Your task to perform on an android device: Go to wifi settings Image 0: 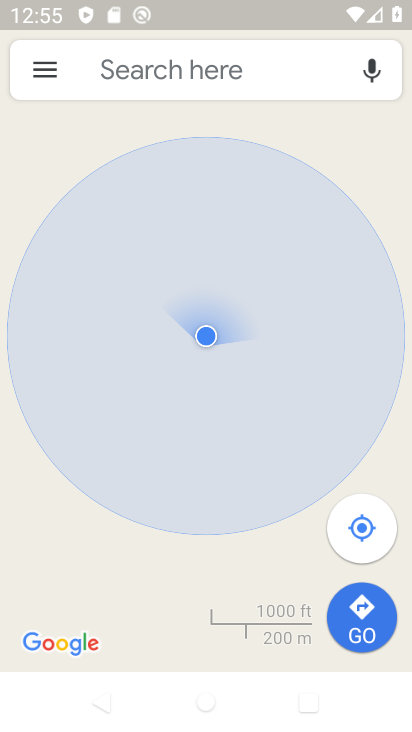
Step 0: press home button
Your task to perform on an android device: Go to wifi settings Image 1: 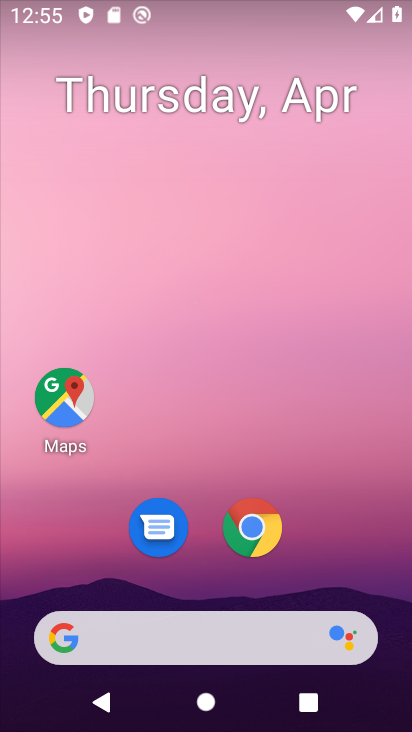
Step 1: drag from (363, 559) to (319, 94)
Your task to perform on an android device: Go to wifi settings Image 2: 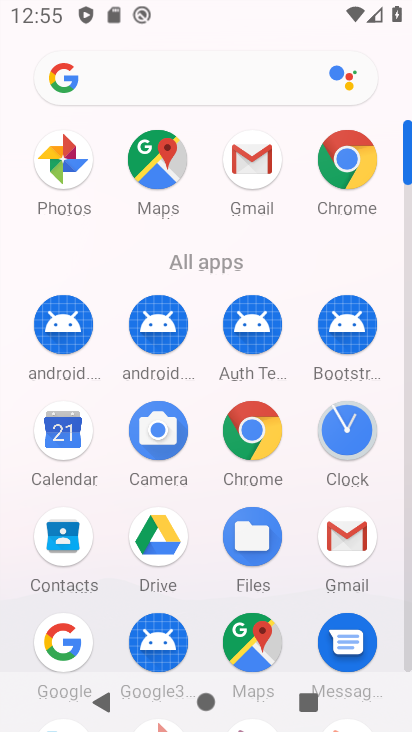
Step 2: click (405, 653)
Your task to perform on an android device: Go to wifi settings Image 3: 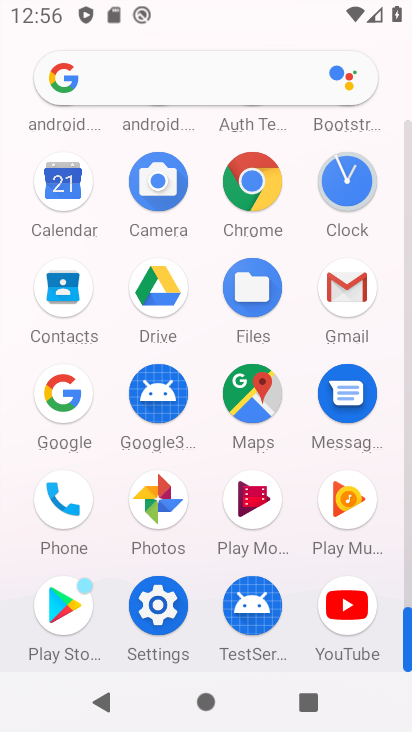
Step 3: click (156, 596)
Your task to perform on an android device: Go to wifi settings Image 4: 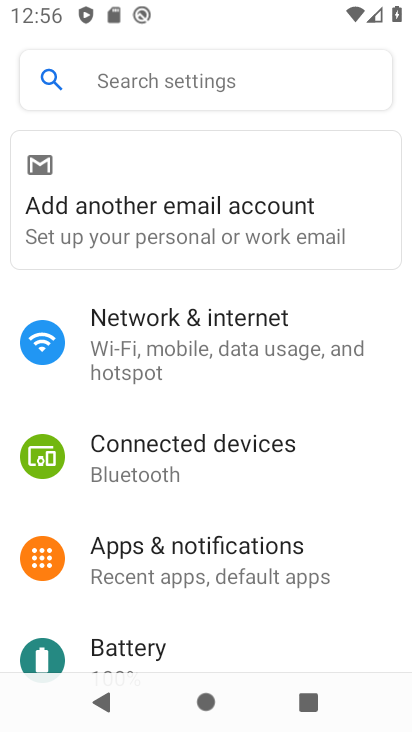
Step 4: click (174, 330)
Your task to perform on an android device: Go to wifi settings Image 5: 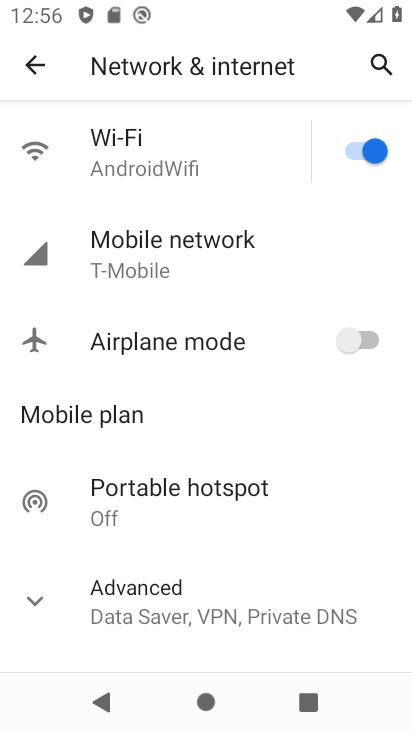
Step 5: click (134, 166)
Your task to perform on an android device: Go to wifi settings Image 6: 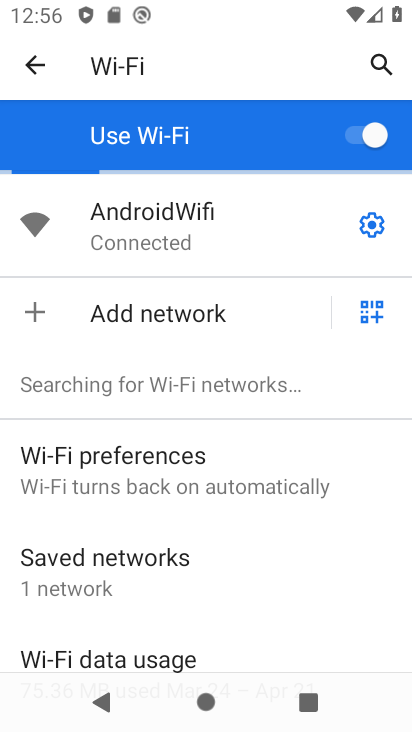
Step 6: drag from (235, 645) to (230, 481)
Your task to perform on an android device: Go to wifi settings Image 7: 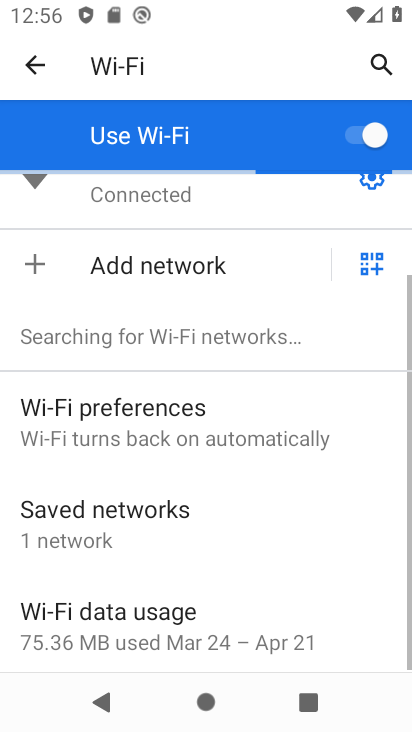
Step 7: drag from (225, 500) to (202, 444)
Your task to perform on an android device: Go to wifi settings Image 8: 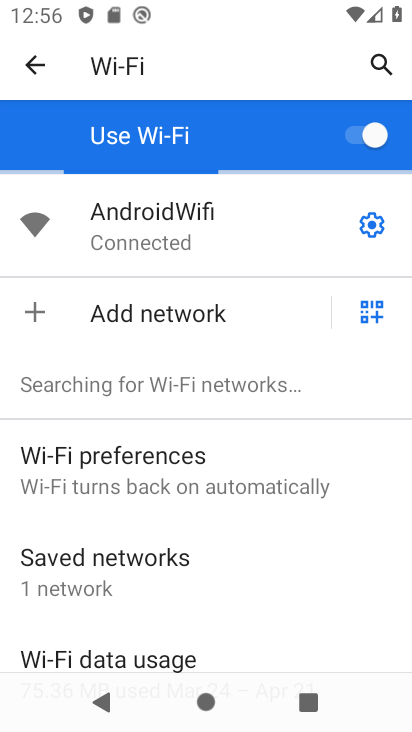
Step 8: click (370, 224)
Your task to perform on an android device: Go to wifi settings Image 9: 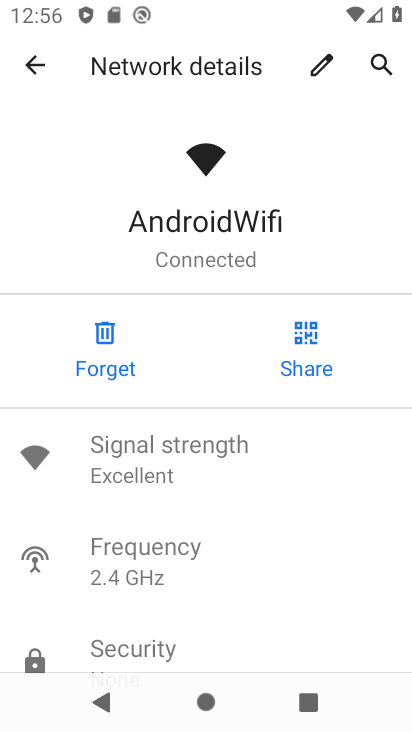
Step 9: drag from (250, 571) to (244, 271)
Your task to perform on an android device: Go to wifi settings Image 10: 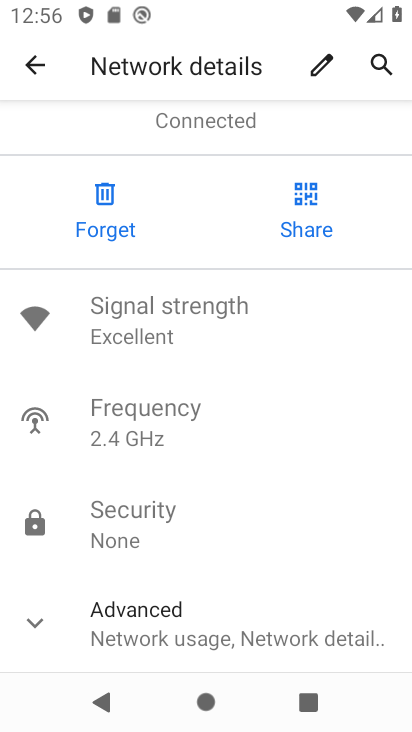
Step 10: click (59, 611)
Your task to perform on an android device: Go to wifi settings Image 11: 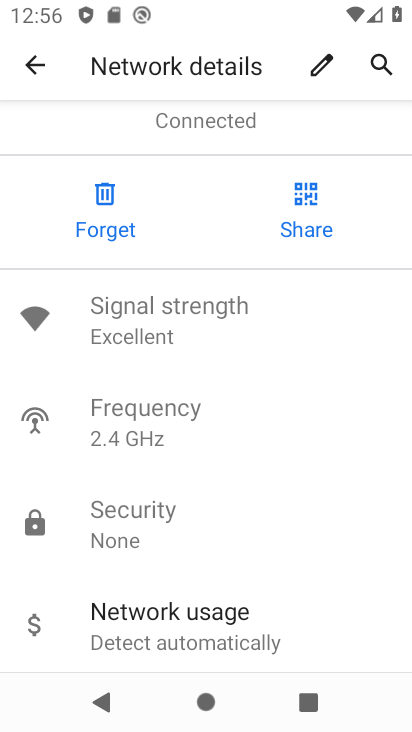
Step 11: task complete